Your task to perform on an android device: Show me recent news Image 0: 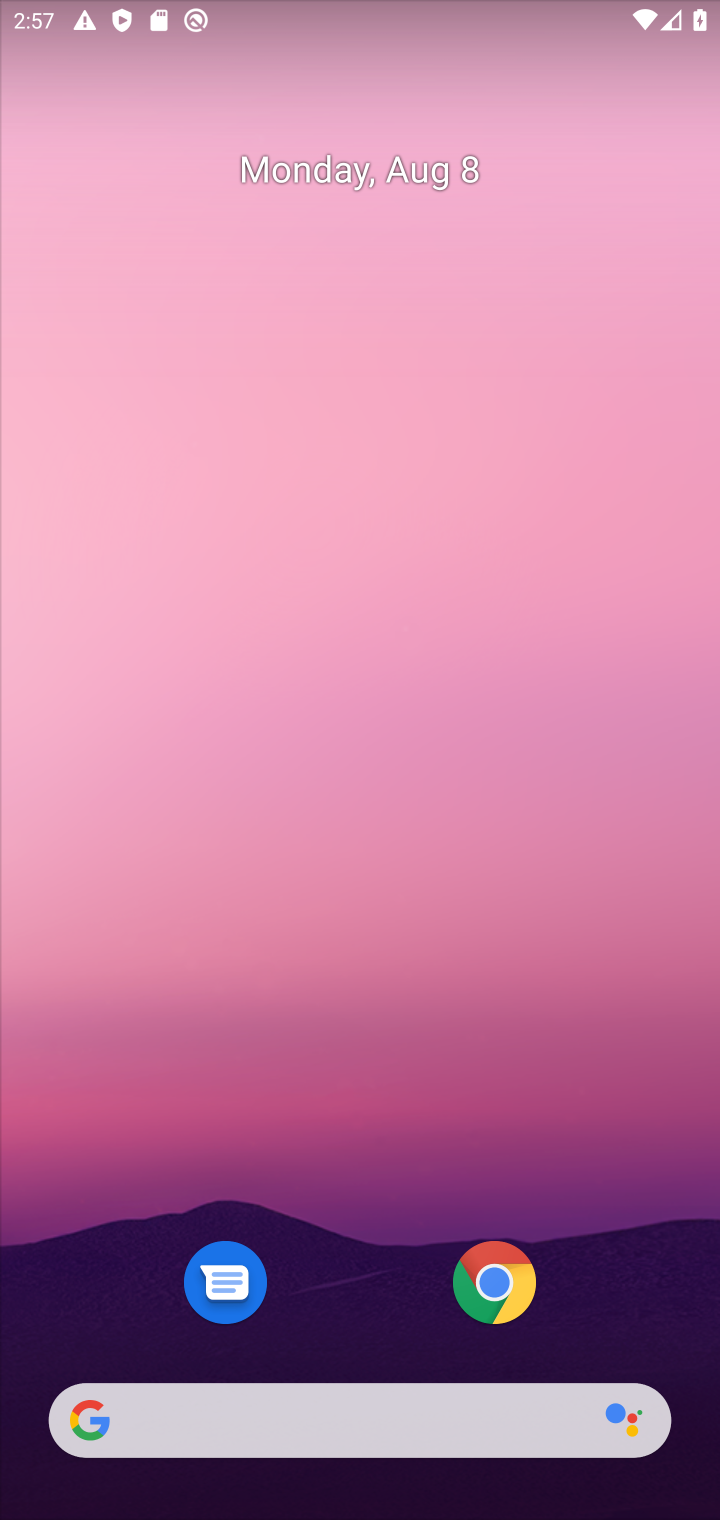
Step 0: drag from (340, 1022) to (393, 279)
Your task to perform on an android device: Show me recent news Image 1: 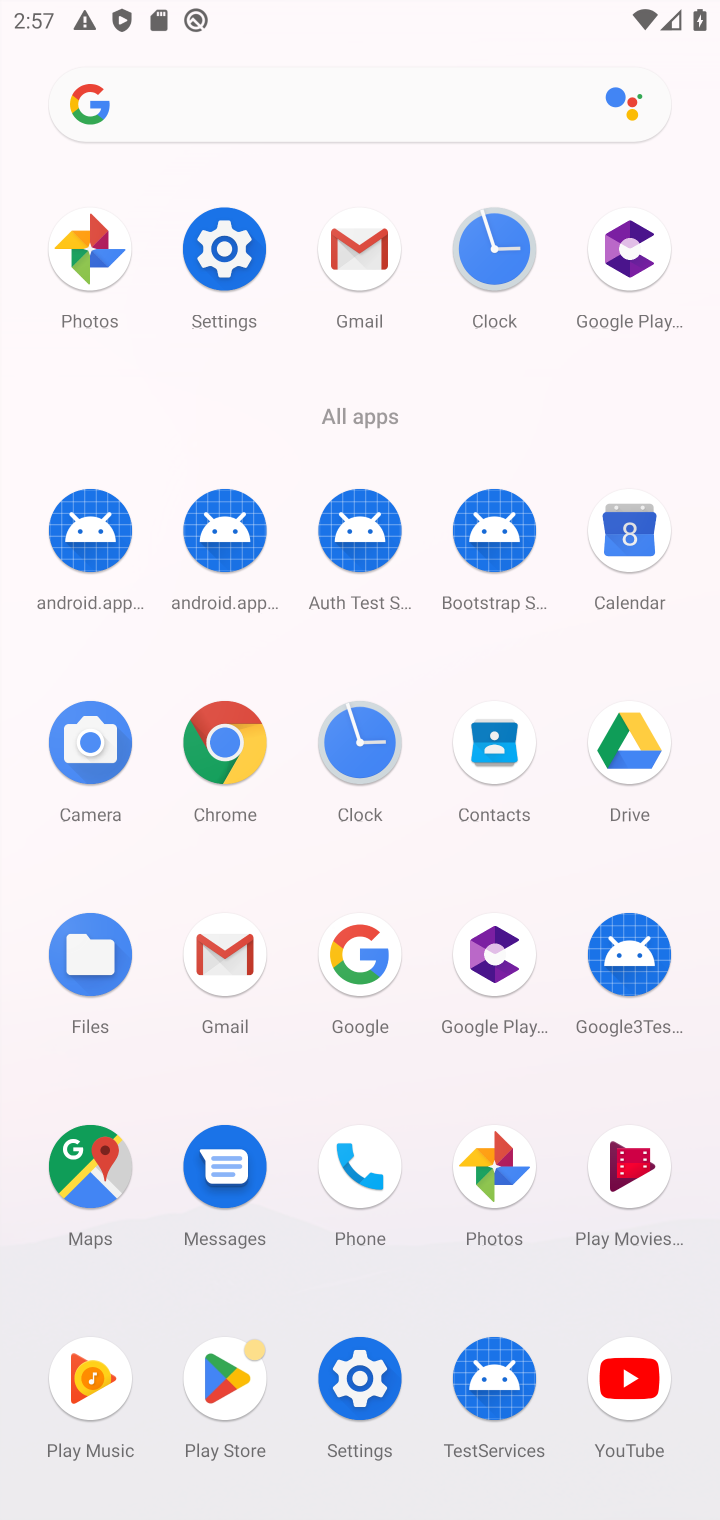
Step 1: click (230, 740)
Your task to perform on an android device: Show me recent news Image 2: 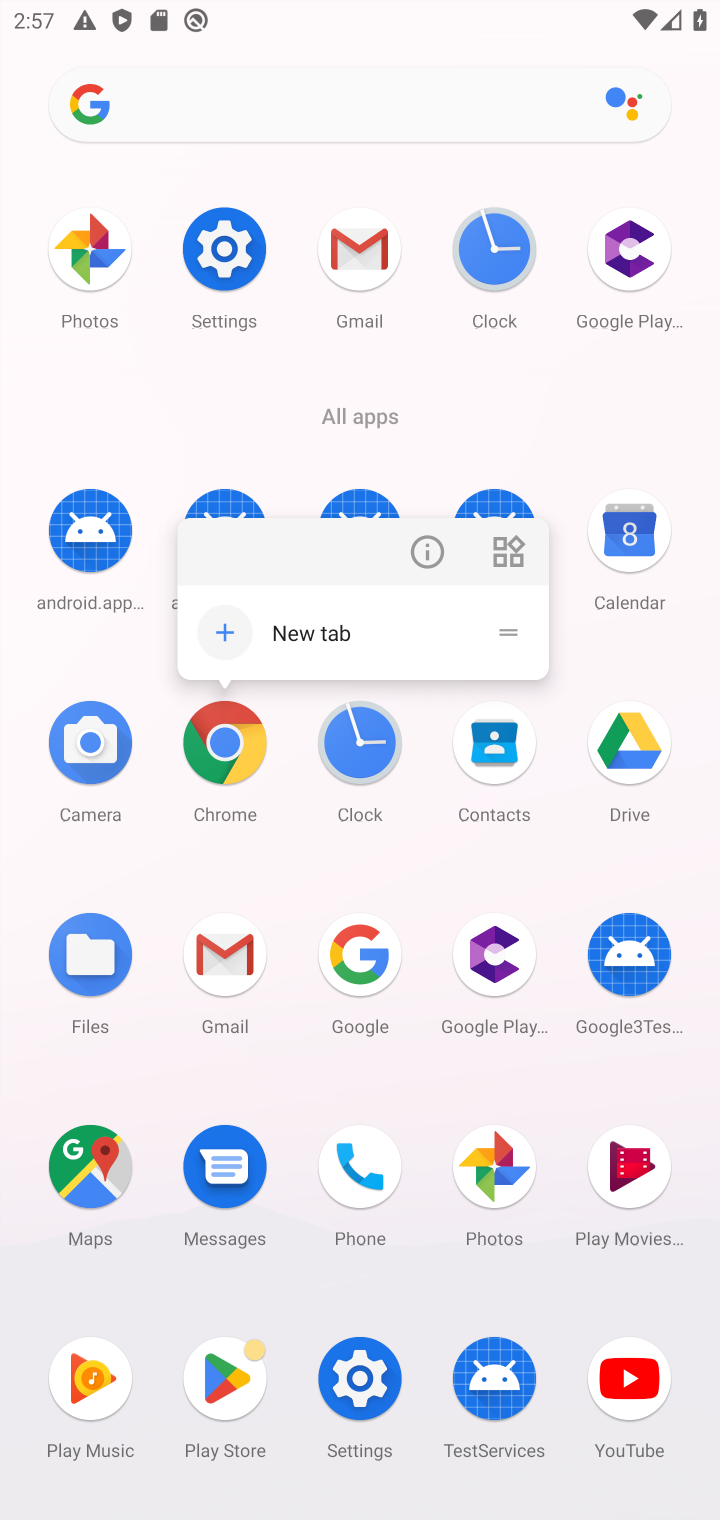
Step 2: click (230, 740)
Your task to perform on an android device: Show me recent news Image 3: 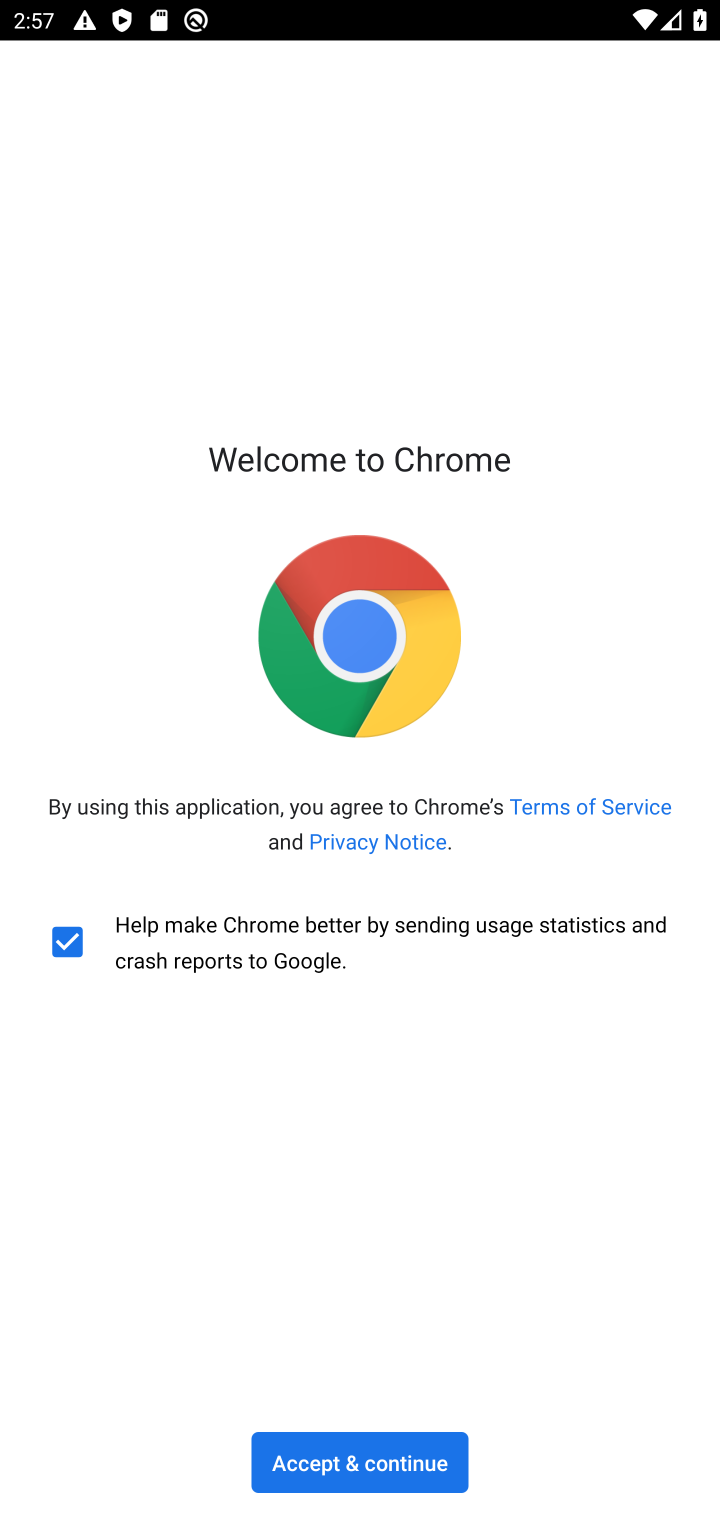
Step 3: click (337, 1464)
Your task to perform on an android device: Show me recent news Image 4: 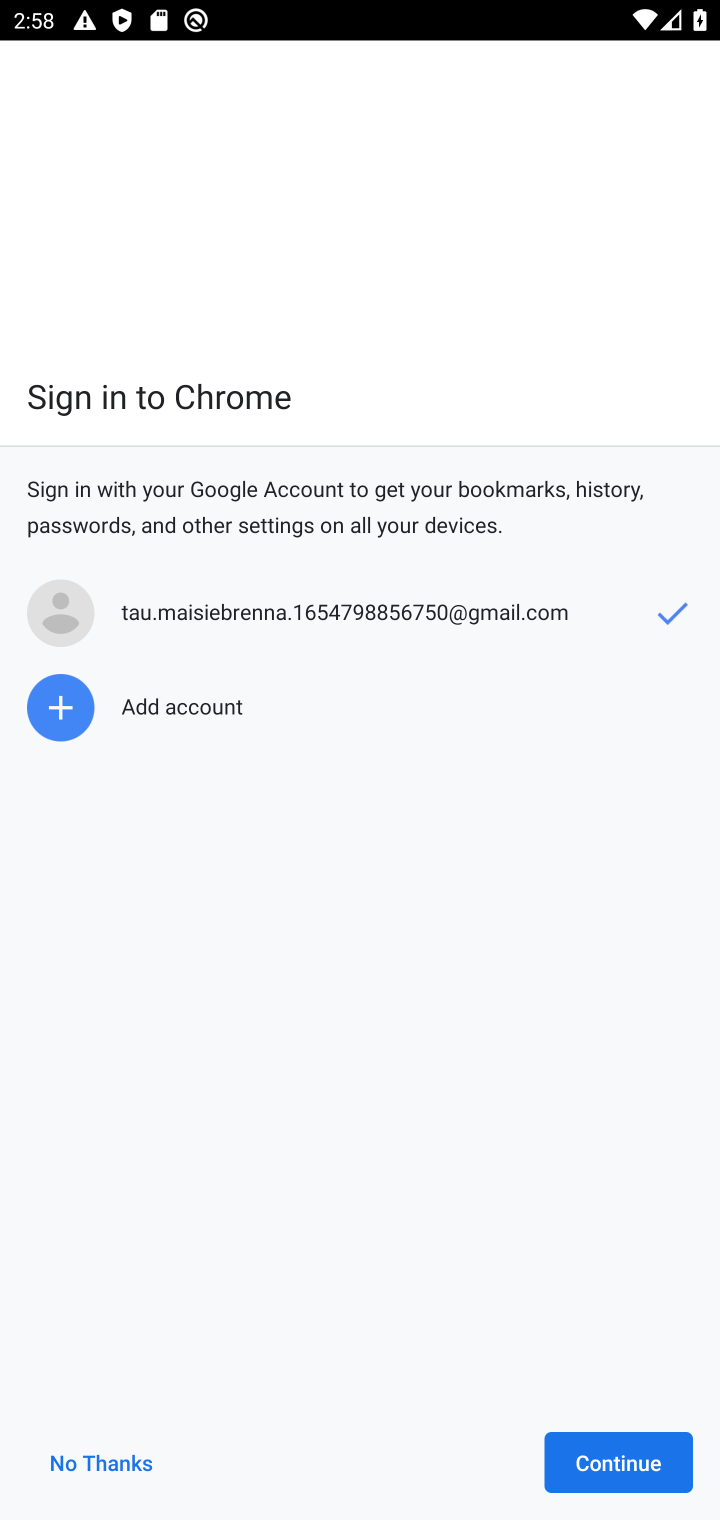
Step 4: click (582, 1466)
Your task to perform on an android device: Show me recent news Image 5: 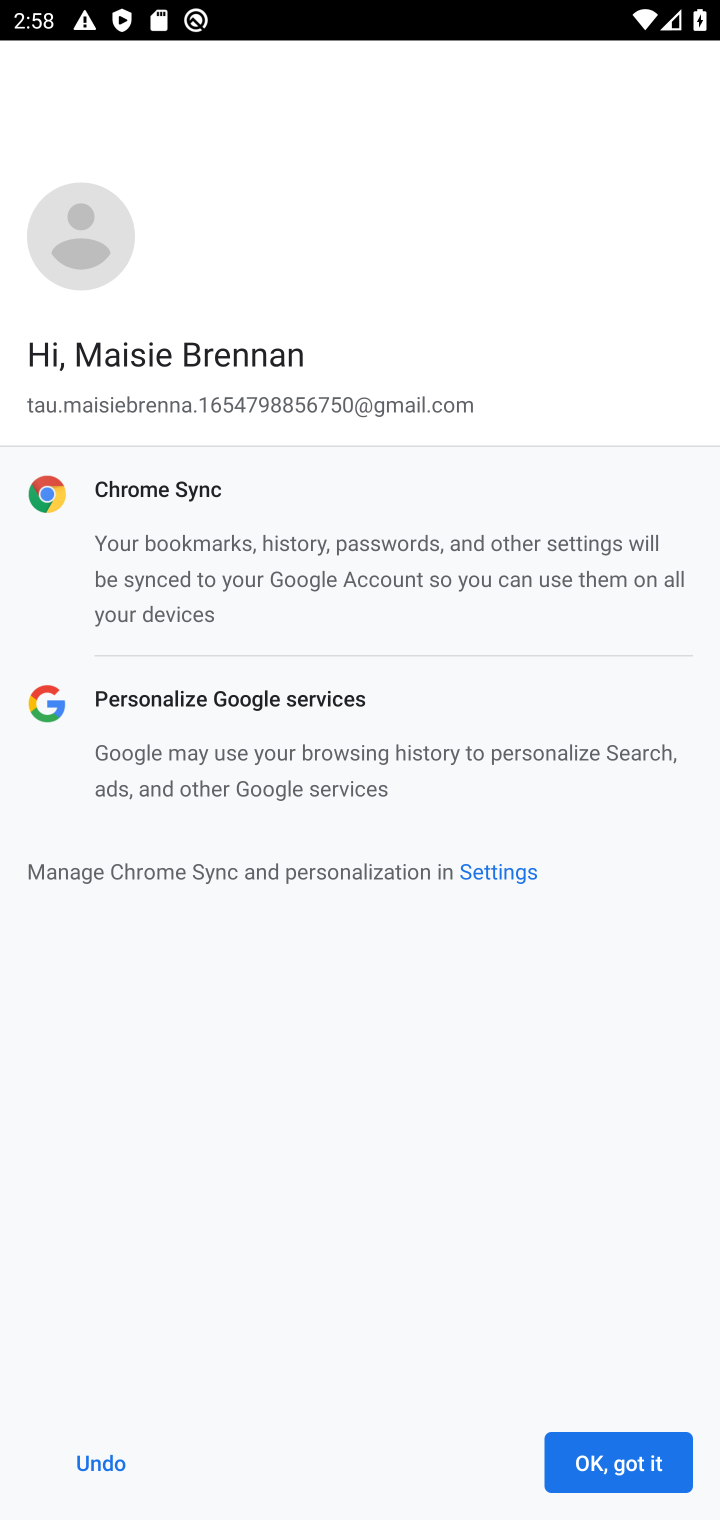
Step 5: click (624, 1450)
Your task to perform on an android device: Show me recent news Image 6: 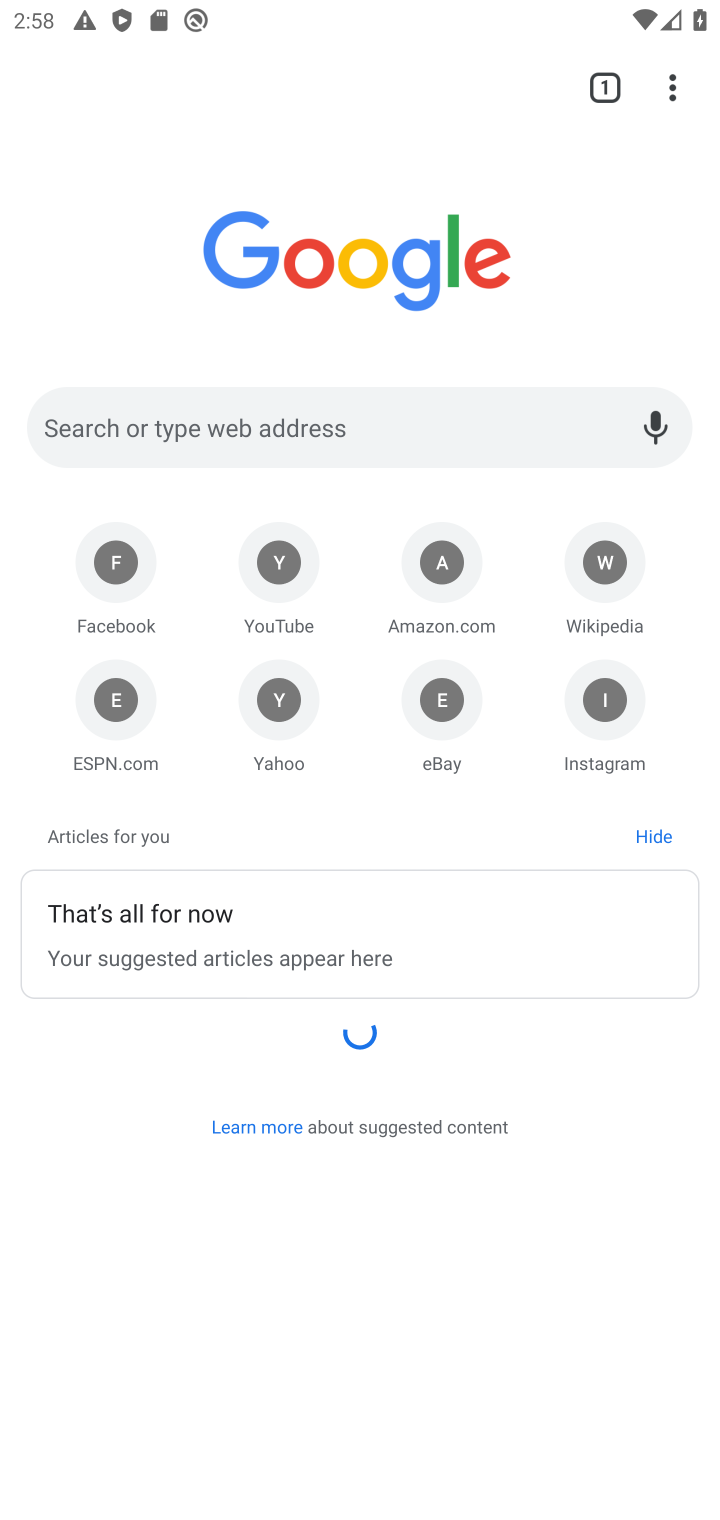
Step 6: click (334, 420)
Your task to perform on an android device: Show me recent news Image 7: 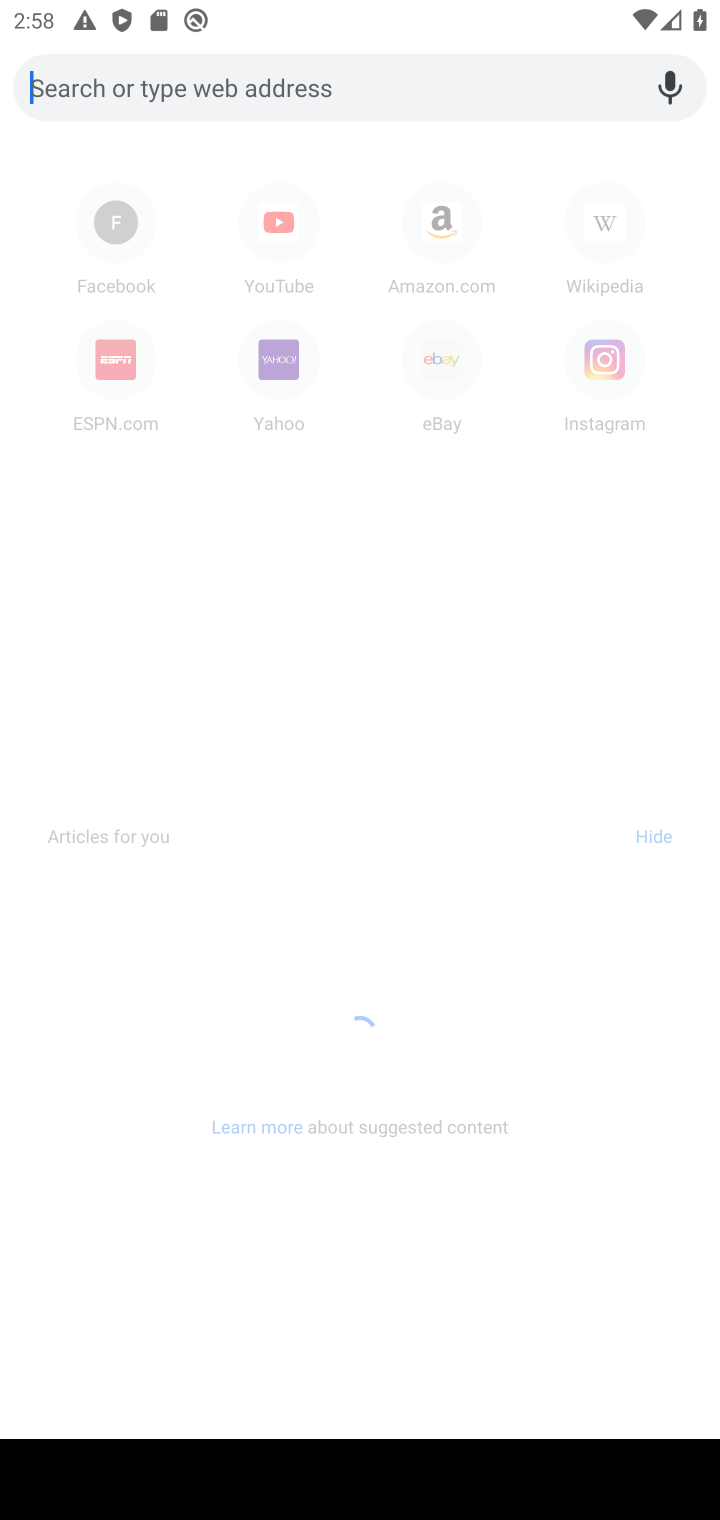
Step 7: type "news"
Your task to perform on an android device: Show me recent news Image 8: 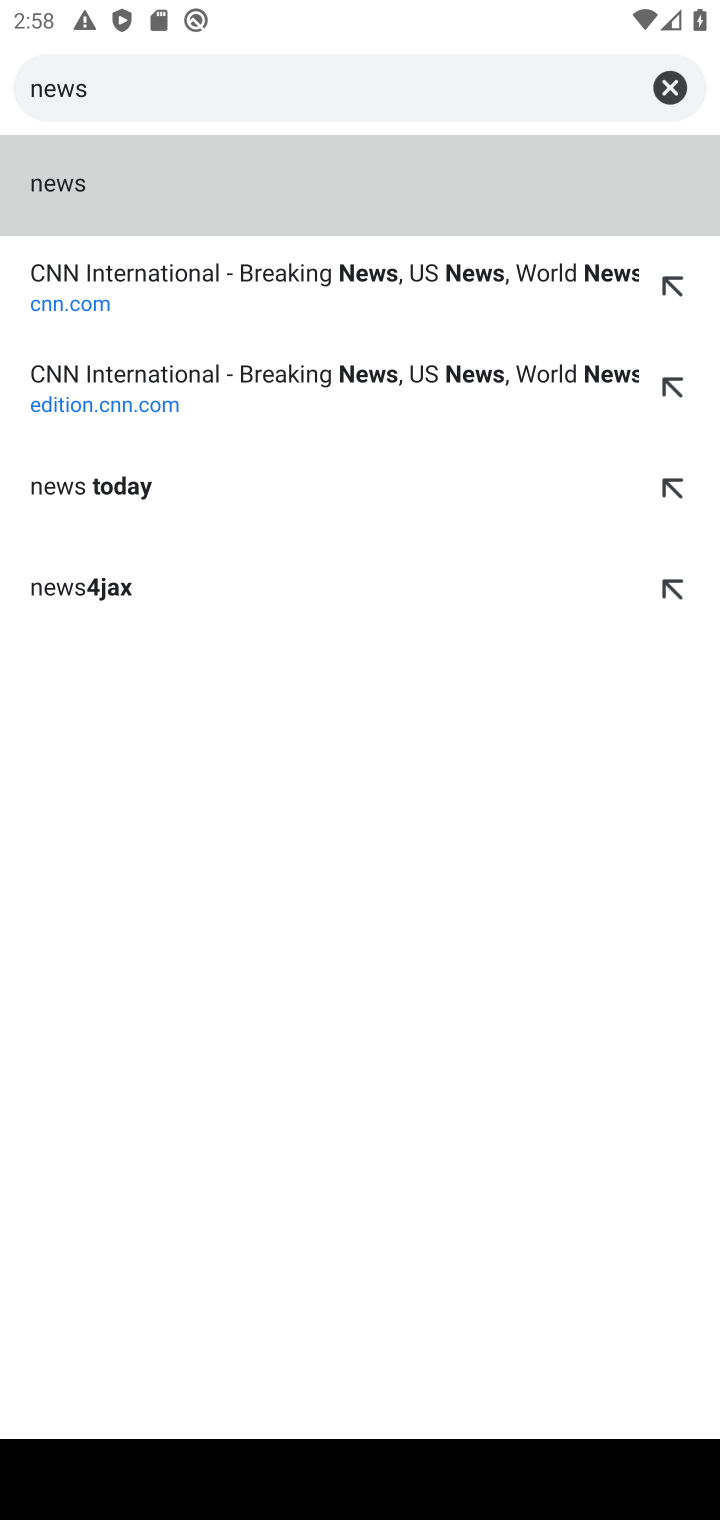
Step 8: click (99, 199)
Your task to perform on an android device: Show me recent news Image 9: 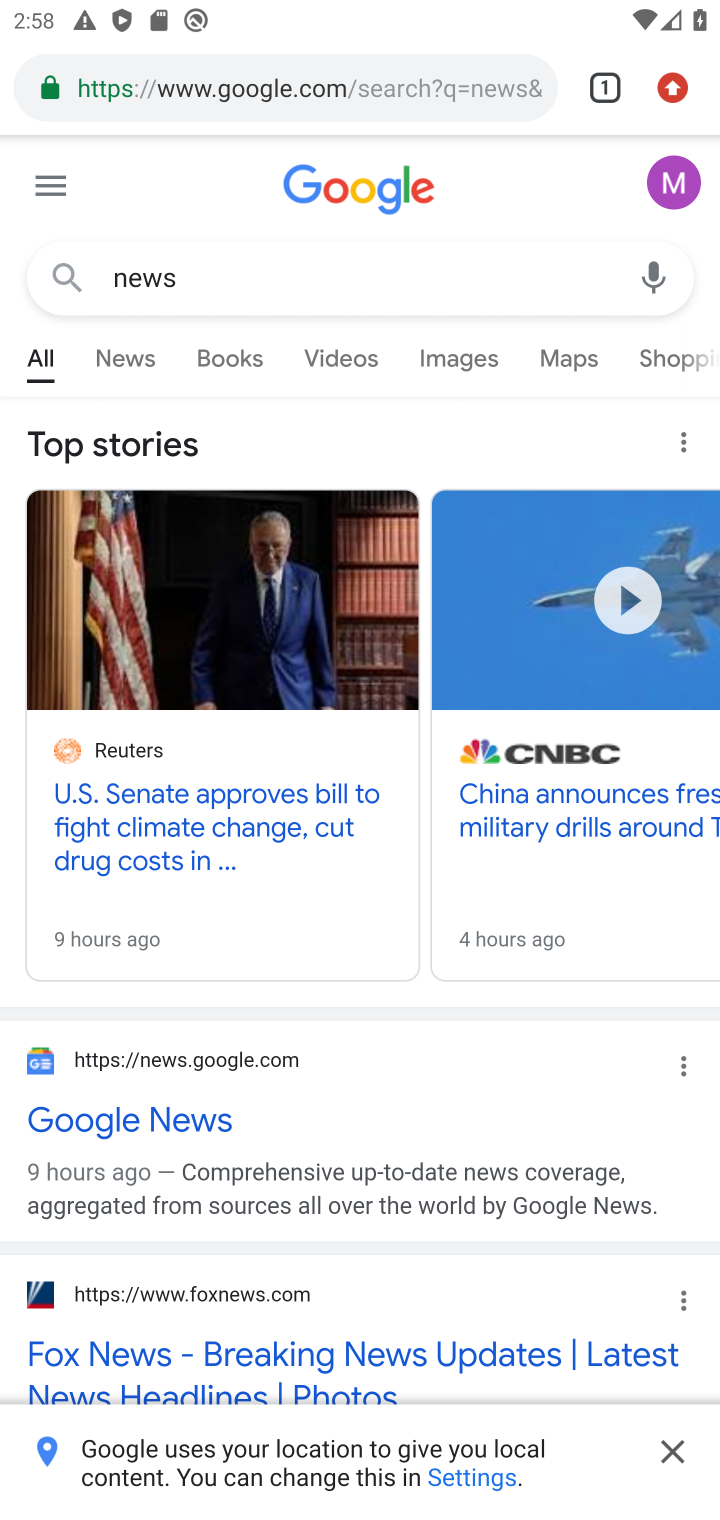
Step 9: click (97, 1117)
Your task to perform on an android device: Show me recent news Image 10: 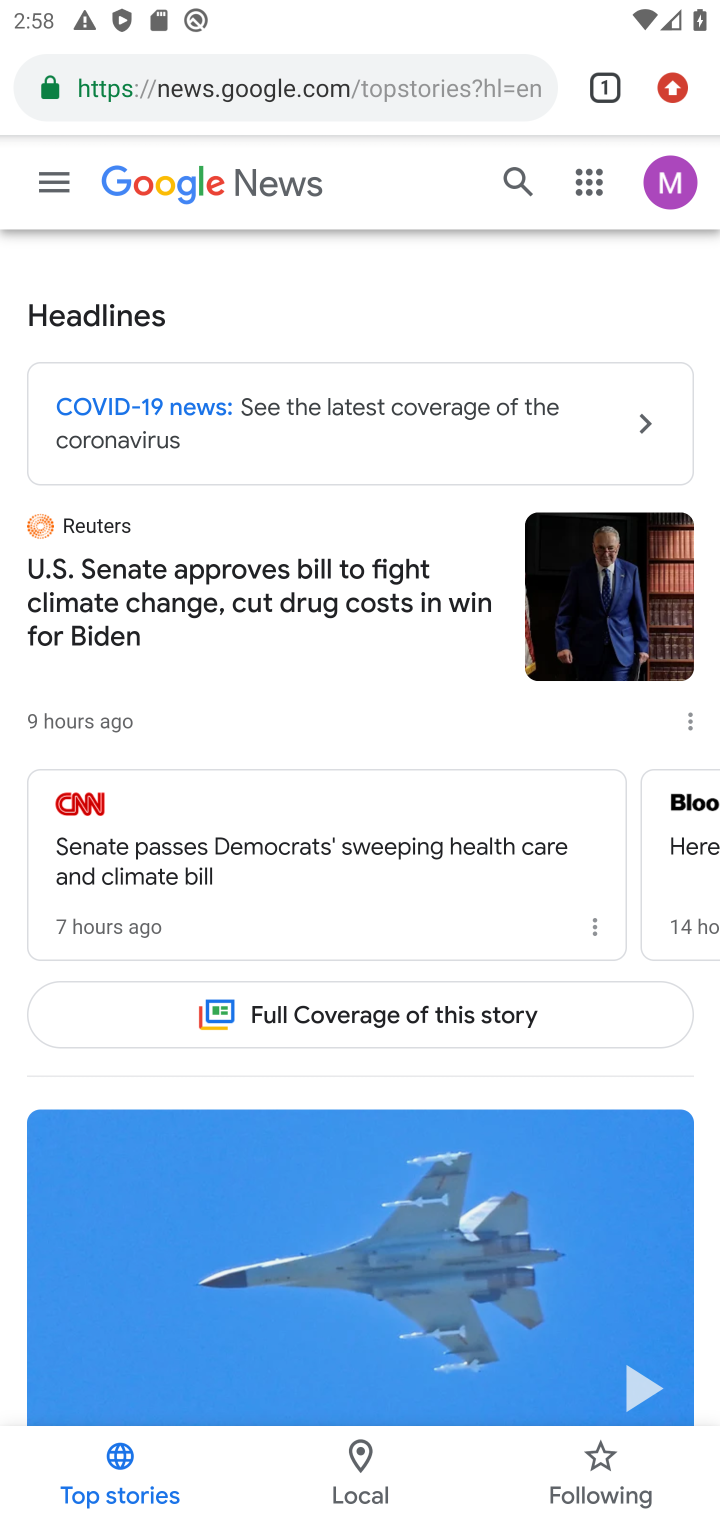
Step 10: task complete